Your task to perform on an android device: turn off smart reply in the gmail app Image 0: 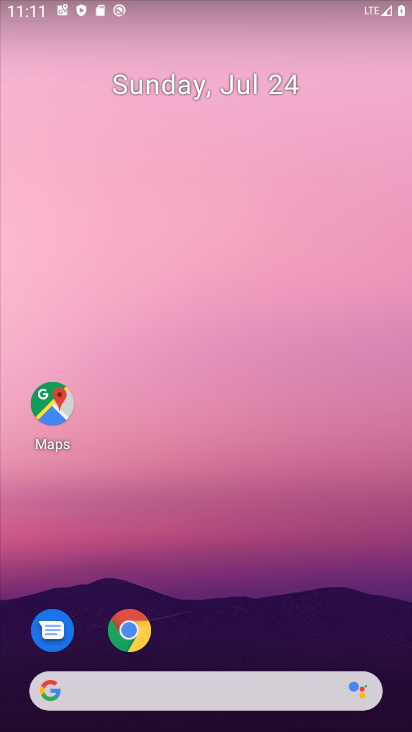
Step 0: drag from (177, 629) to (213, 208)
Your task to perform on an android device: turn off smart reply in the gmail app Image 1: 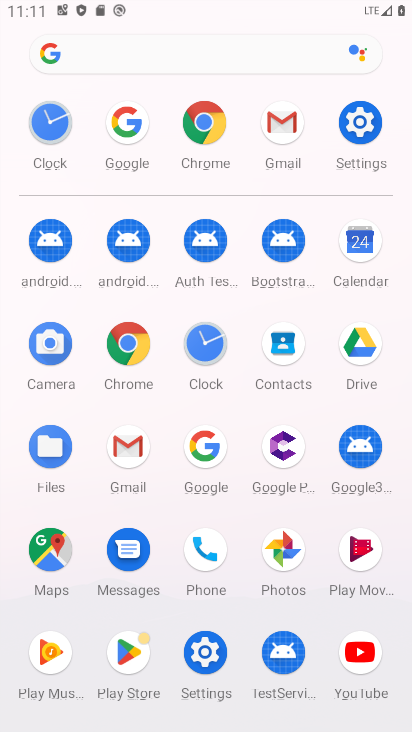
Step 1: click (263, 144)
Your task to perform on an android device: turn off smart reply in the gmail app Image 2: 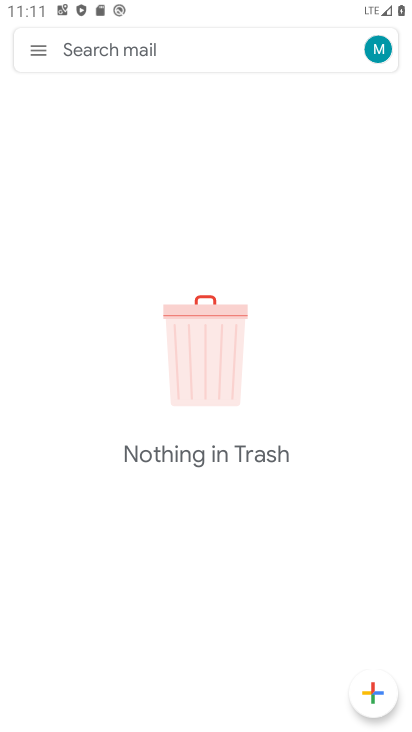
Step 2: click (38, 65)
Your task to perform on an android device: turn off smart reply in the gmail app Image 3: 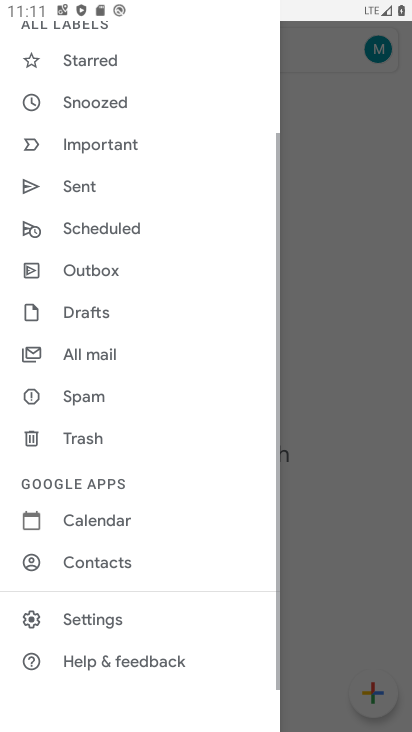
Step 3: click (69, 622)
Your task to perform on an android device: turn off smart reply in the gmail app Image 4: 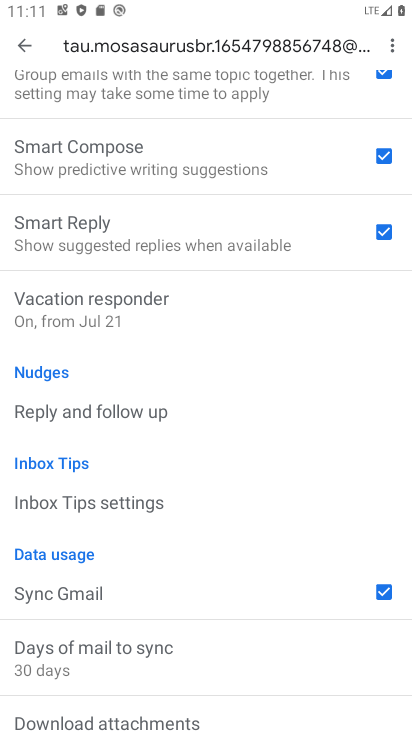
Step 4: click (380, 237)
Your task to perform on an android device: turn off smart reply in the gmail app Image 5: 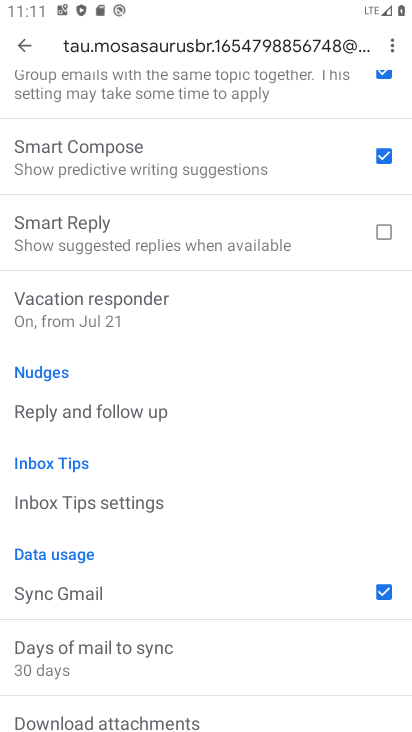
Step 5: task complete